Your task to perform on an android device: open chrome and create a bookmark for the current page Image 0: 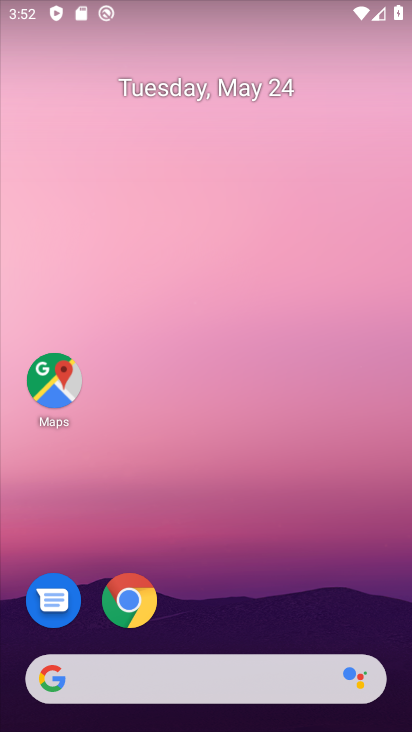
Step 0: drag from (310, 655) to (248, 15)
Your task to perform on an android device: open chrome and create a bookmark for the current page Image 1: 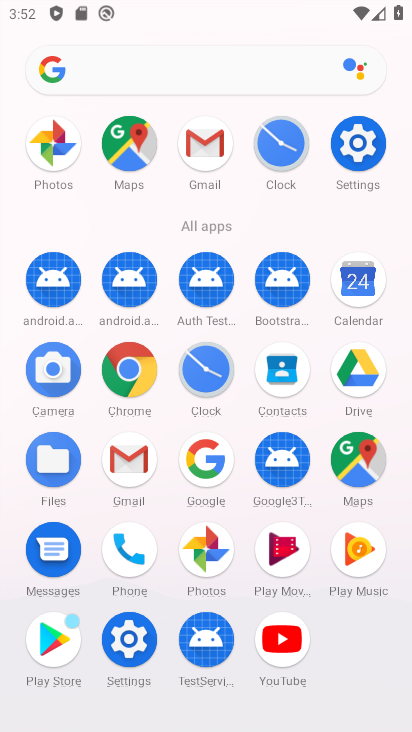
Step 1: click (129, 352)
Your task to perform on an android device: open chrome and create a bookmark for the current page Image 2: 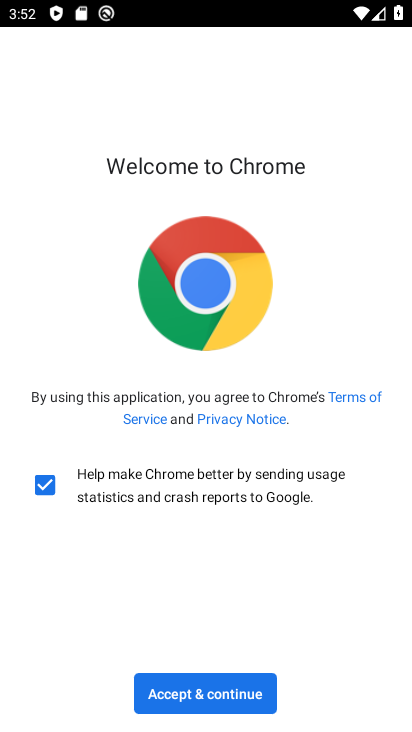
Step 2: click (213, 687)
Your task to perform on an android device: open chrome and create a bookmark for the current page Image 3: 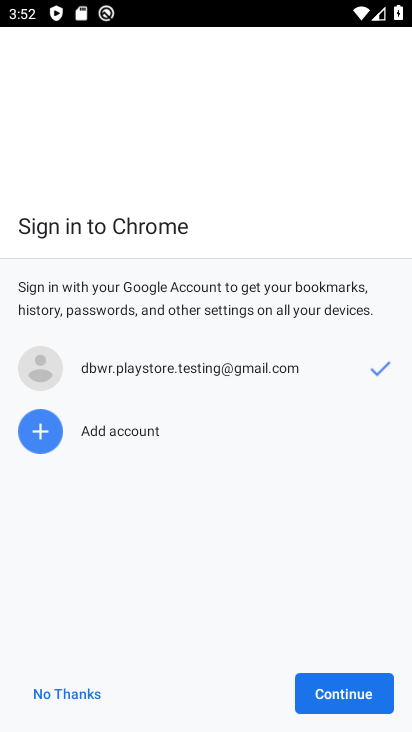
Step 3: click (83, 694)
Your task to perform on an android device: open chrome and create a bookmark for the current page Image 4: 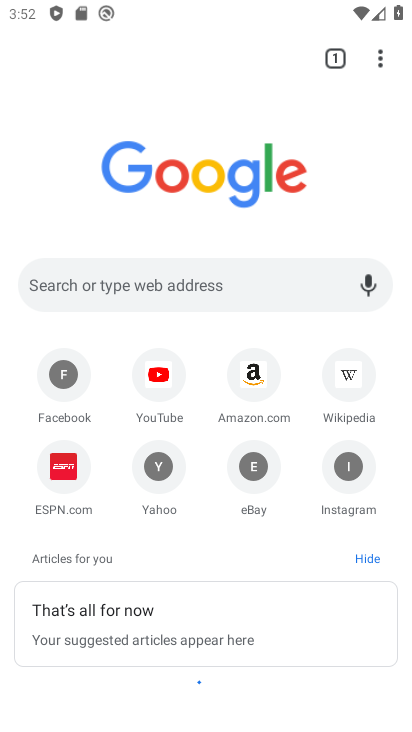
Step 4: task complete